Your task to perform on an android device: turn off sleep mode Image 0: 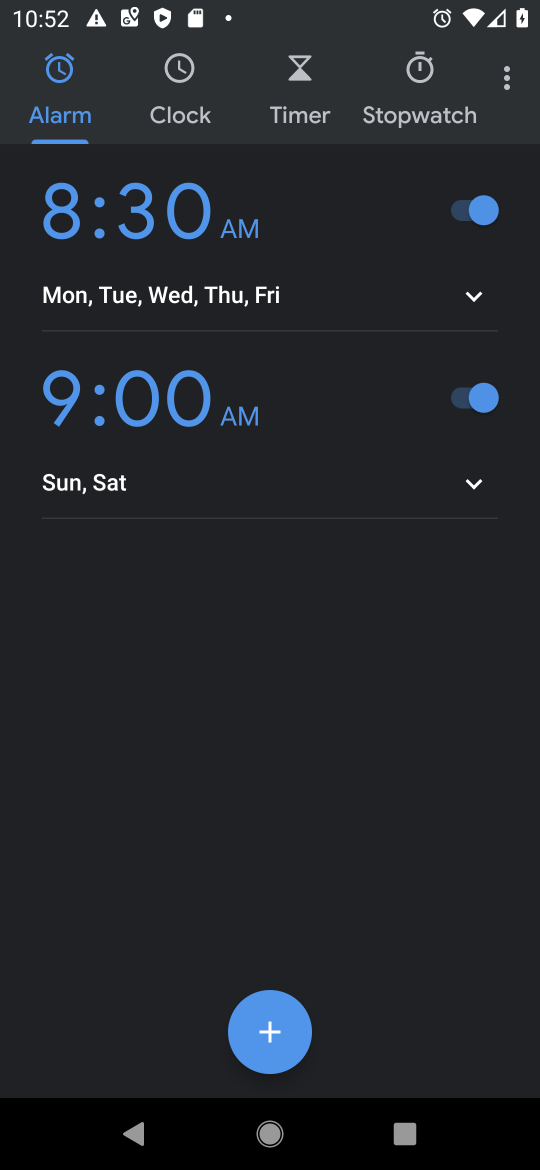
Step 0: press home button
Your task to perform on an android device: turn off sleep mode Image 1: 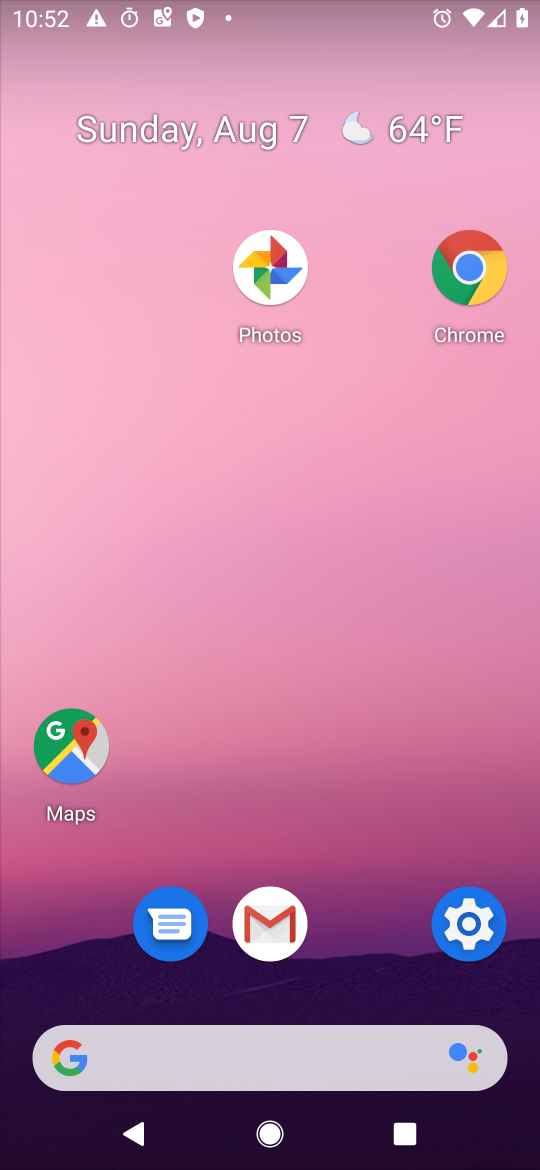
Step 1: click (466, 935)
Your task to perform on an android device: turn off sleep mode Image 2: 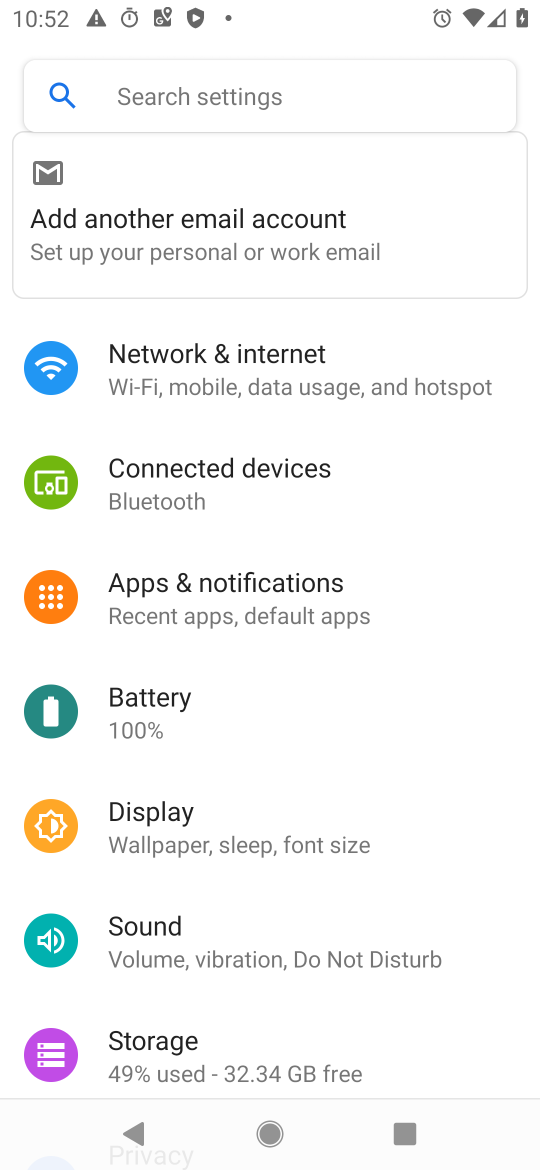
Step 2: click (212, 95)
Your task to perform on an android device: turn off sleep mode Image 3: 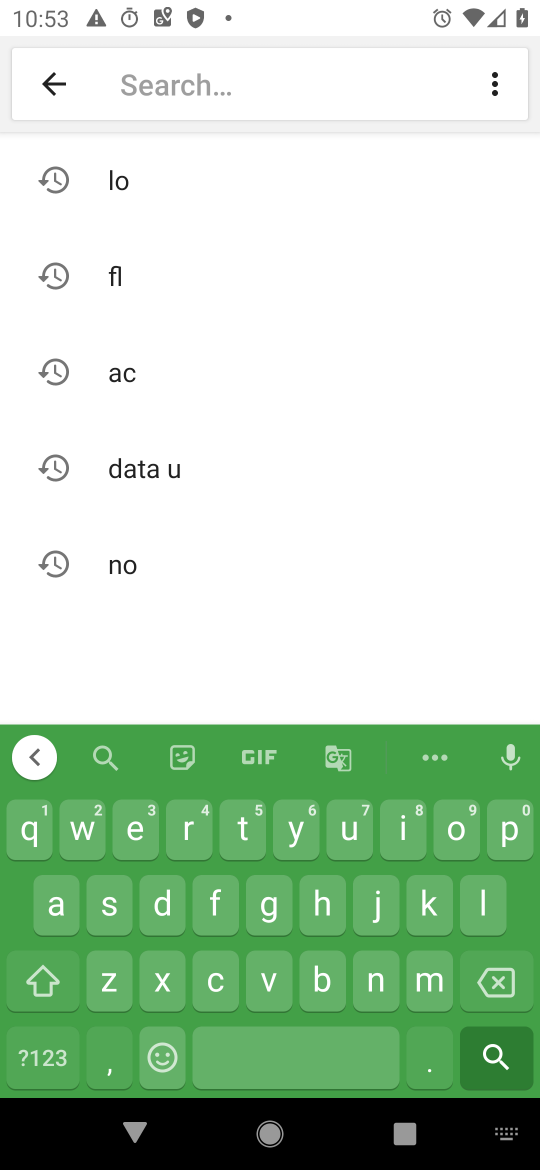
Step 3: click (107, 906)
Your task to perform on an android device: turn off sleep mode Image 4: 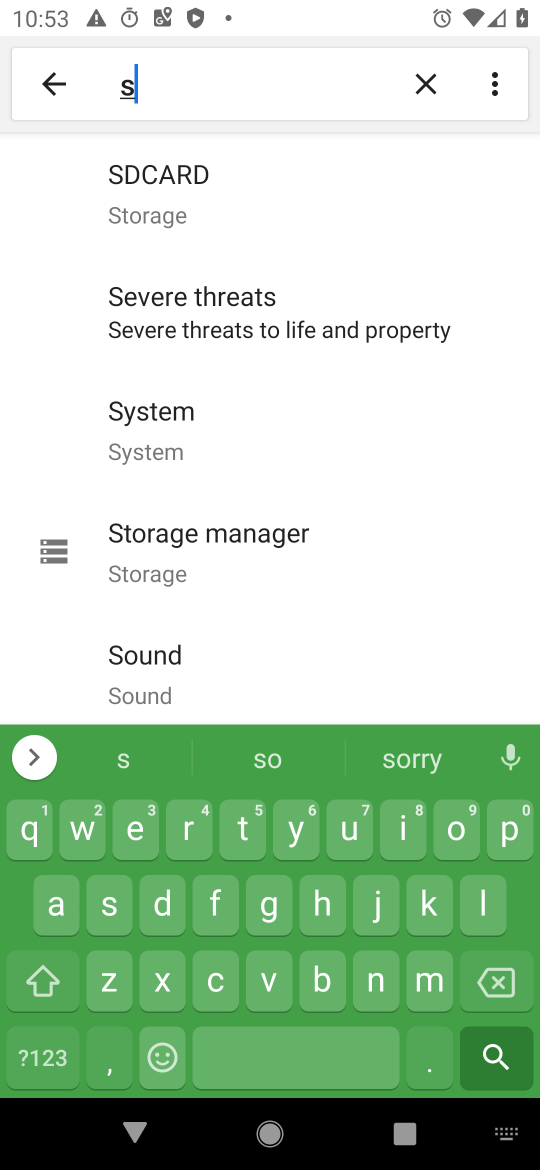
Step 4: click (478, 904)
Your task to perform on an android device: turn off sleep mode Image 5: 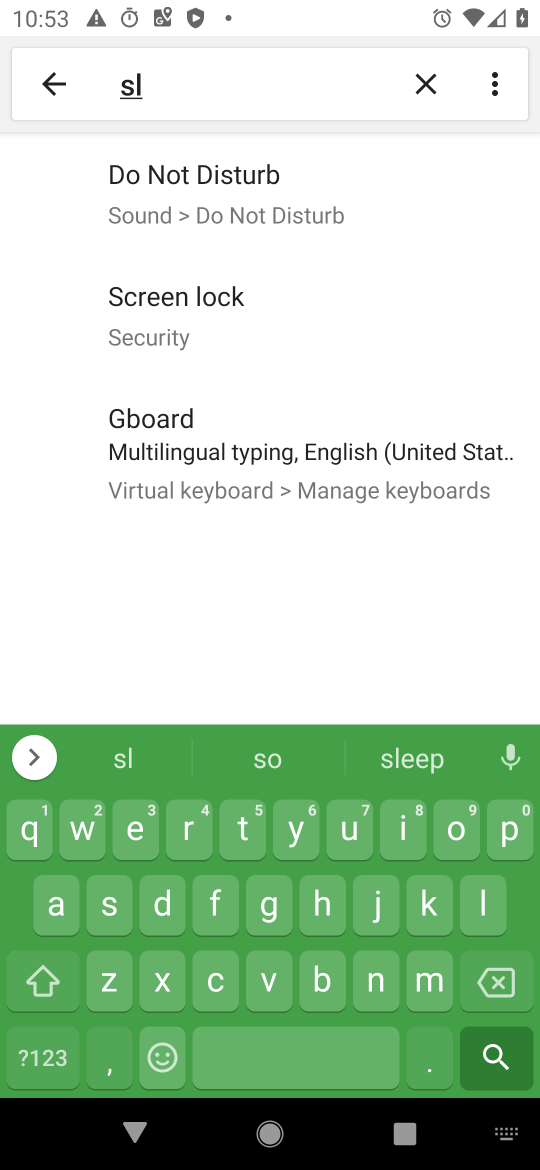
Step 5: click (196, 181)
Your task to perform on an android device: turn off sleep mode Image 6: 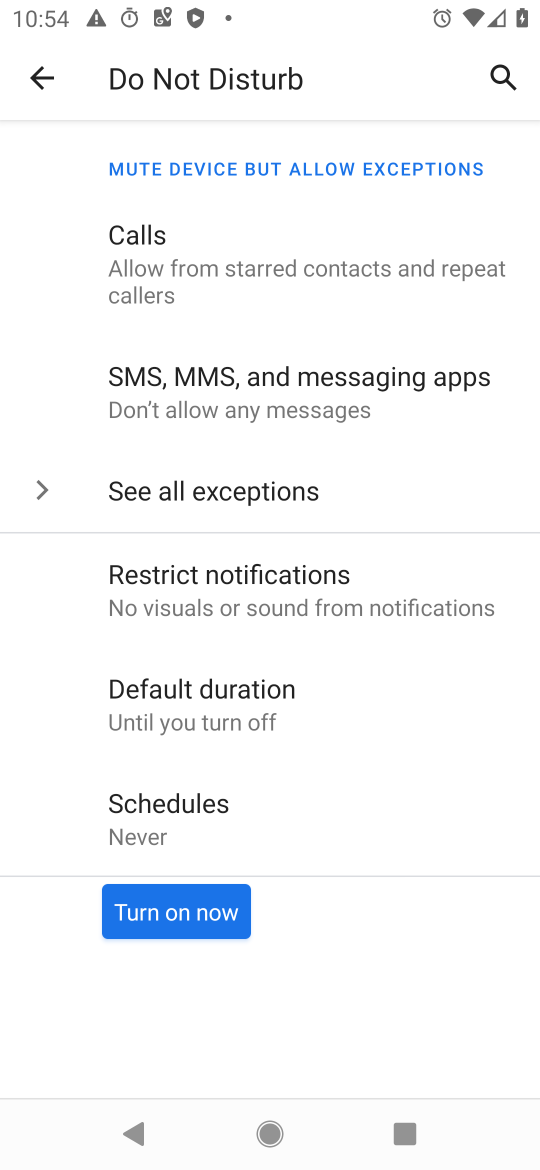
Step 6: task complete